Your task to perform on an android device: open a new tab in the chrome app Image 0: 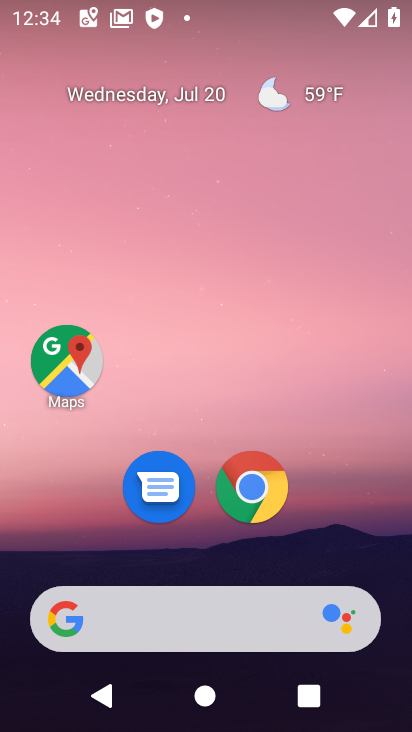
Step 0: click (266, 488)
Your task to perform on an android device: open a new tab in the chrome app Image 1: 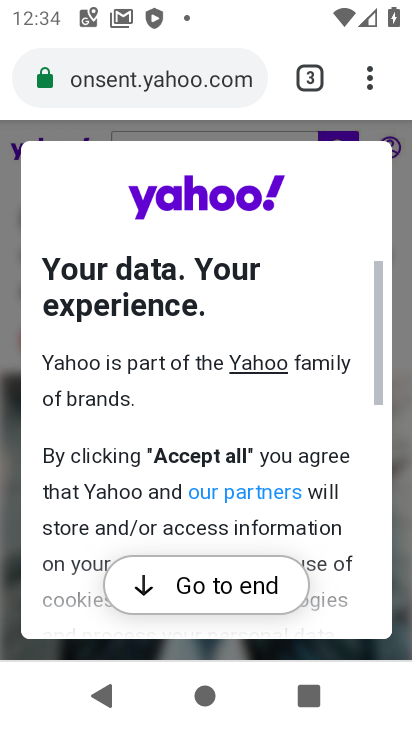
Step 1: click (314, 77)
Your task to perform on an android device: open a new tab in the chrome app Image 2: 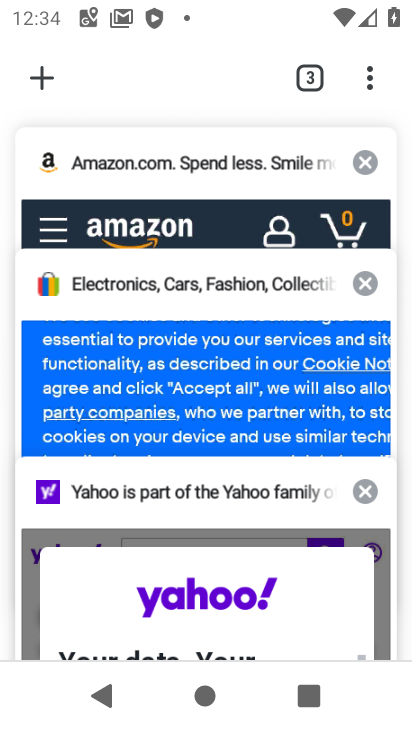
Step 2: click (38, 72)
Your task to perform on an android device: open a new tab in the chrome app Image 3: 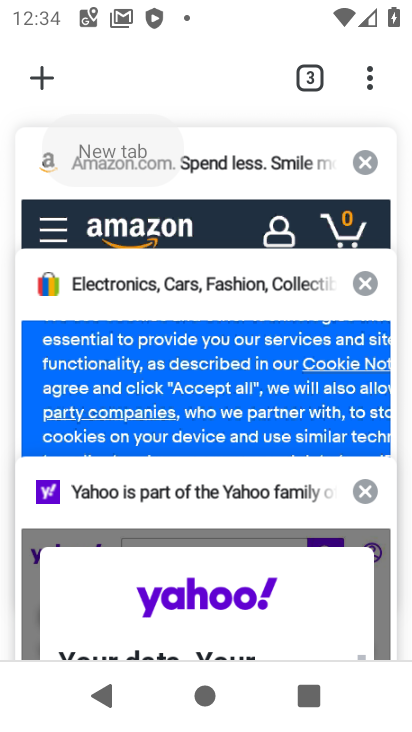
Step 3: click (44, 74)
Your task to perform on an android device: open a new tab in the chrome app Image 4: 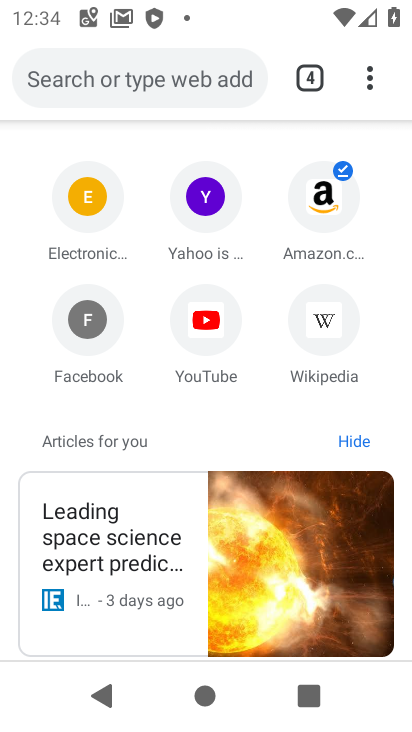
Step 4: task complete